Your task to perform on an android device: turn off sleep mode Image 0: 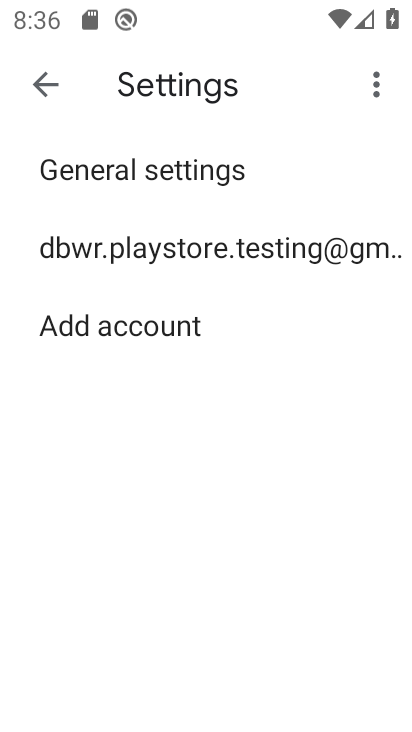
Step 0: press back button
Your task to perform on an android device: turn off sleep mode Image 1: 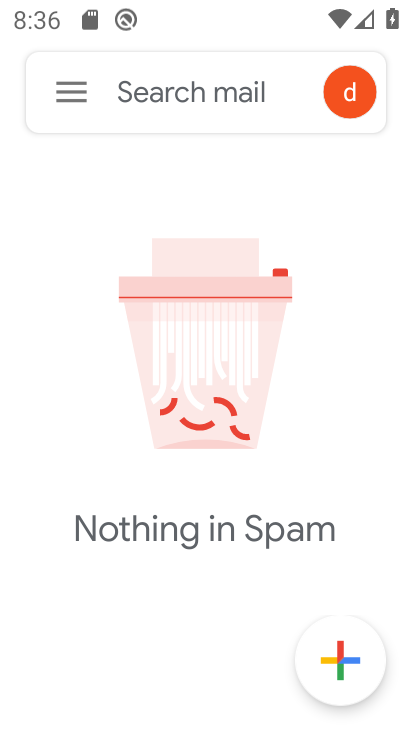
Step 1: click (77, 93)
Your task to perform on an android device: turn off sleep mode Image 2: 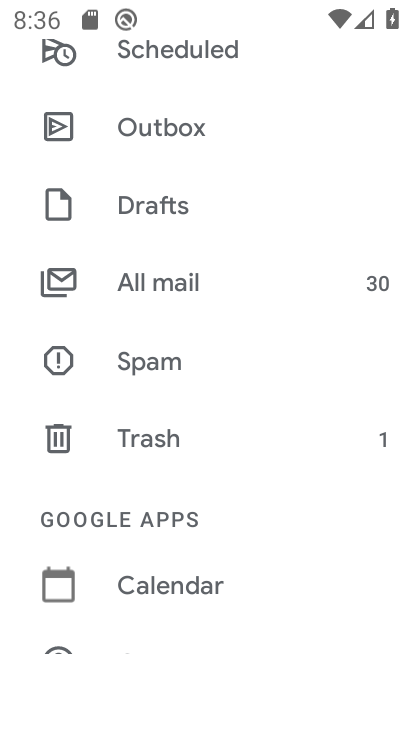
Step 2: press back button
Your task to perform on an android device: turn off sleep mode Image 3: 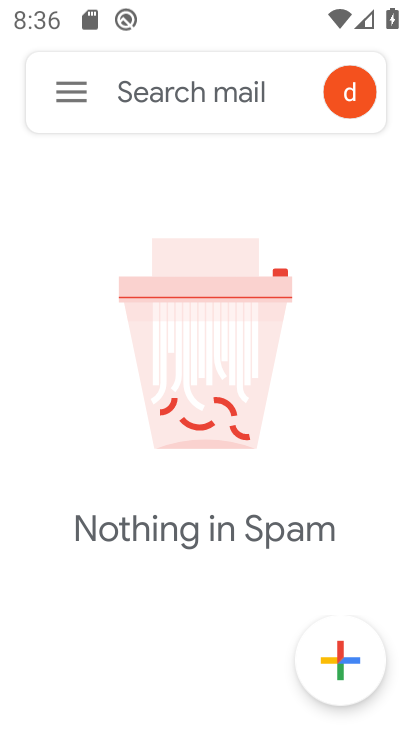
Step 3: press back button
Your task to perform on an android device: turn off sleep mode Image 4: 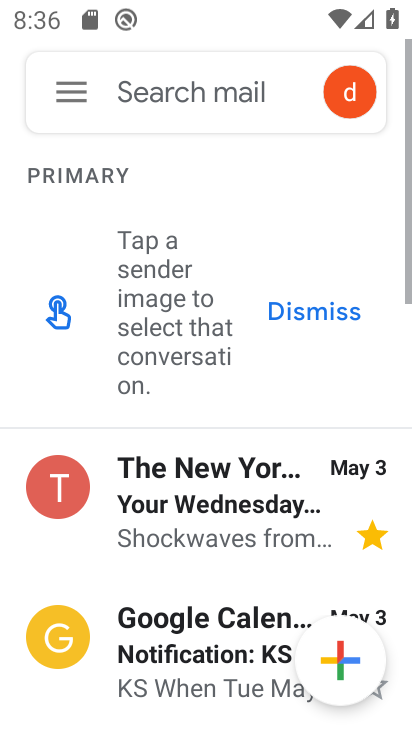
Step 4: press back button
Your task to perform on an android device: turn off sleep mode Image 5: 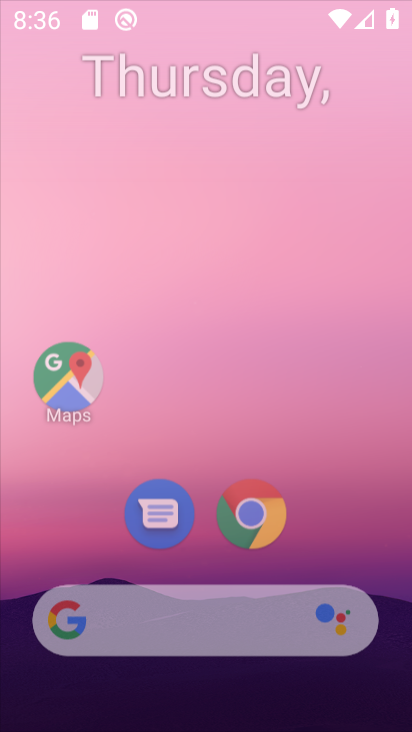
Step 5: press home button
Your task to perform on an android device: turn off sleep mode Image 6: 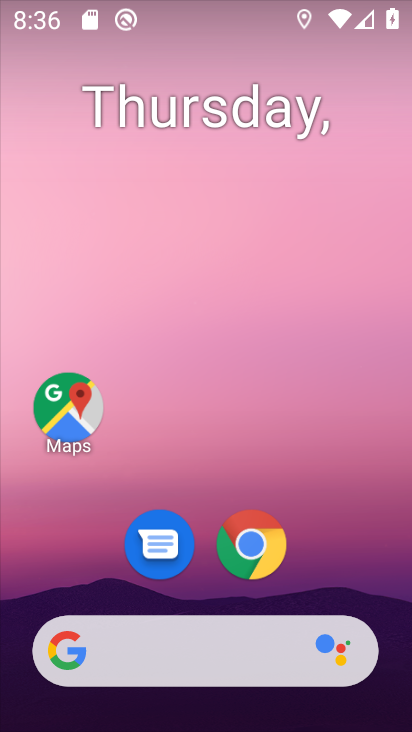
Step 6: drag from (378, 575) to (284, 41)
Your task to perform on an android device: turn off sleep mode Image 7: 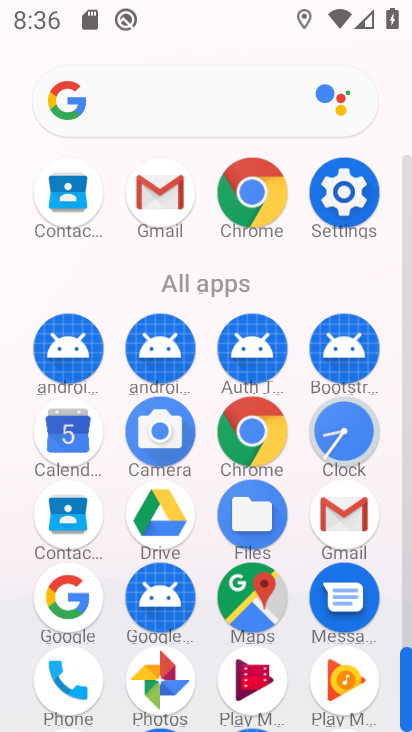
Step 7: click (346, 185)
Your task to perform on an android device: turn off sleep mode Image 8: 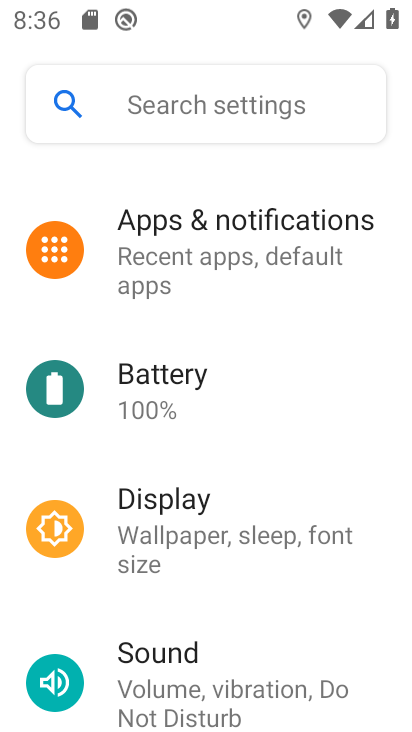
Step 8: click (239, 527)
Your task to perform on an android device: turn off sleep mode Image 9: 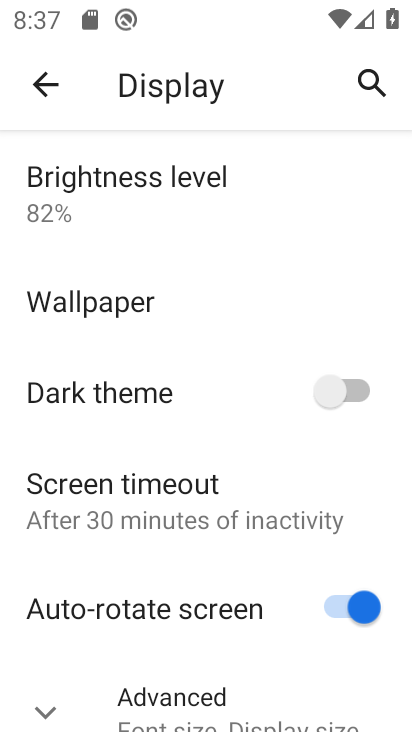
Step 9: drag from (193, 522) to (183, 189)
Your task to perform on an android device: turn off sleep mode Image 10: 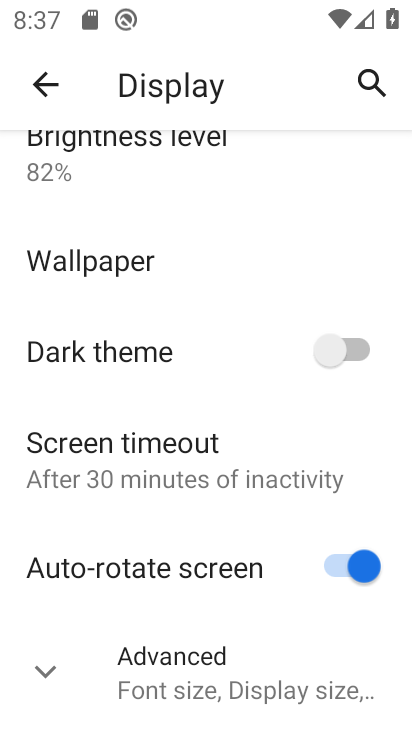
Step 10: click (49, 667)
Your task to perform on an android device: turn off sleep mode Image 11: 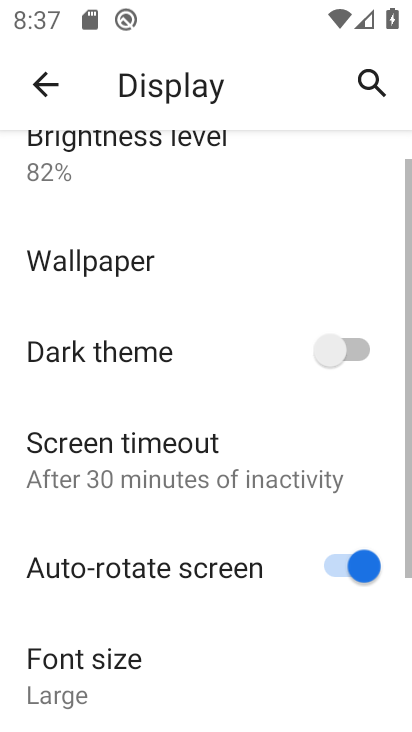
Step 11: task complete